Your task to perform on an android device: open app "DoorDash - Dasher" Image 0: 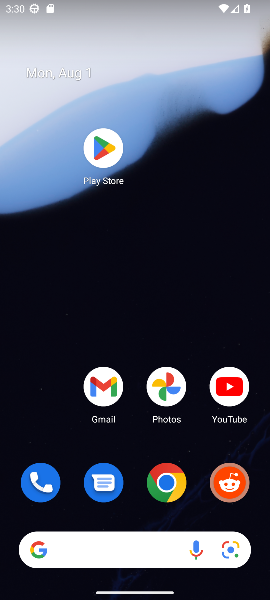
Step 0: press home button
Your task to perform on an android device: open app "DoorDash - Dasher" Image 1: 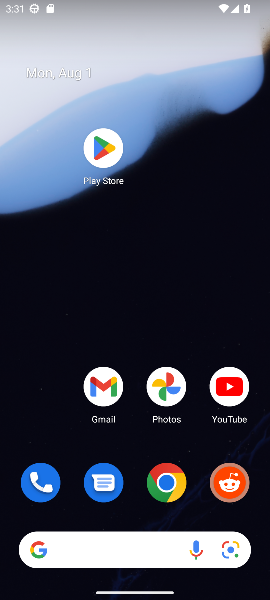
Step 1: click (105, 148)
Your task to perform on an android device: open app "DoorDash - Dasher" Image 2: 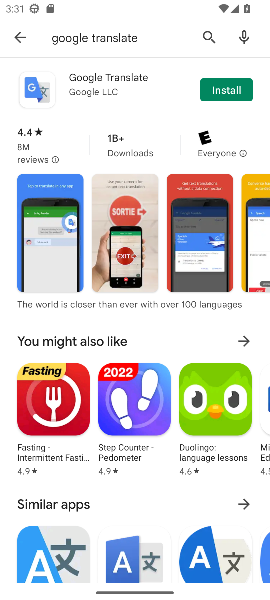
Step 2: click (208, 31)
Your task to perform on an android device: open app "DoorDash - Dasher" Image 3: 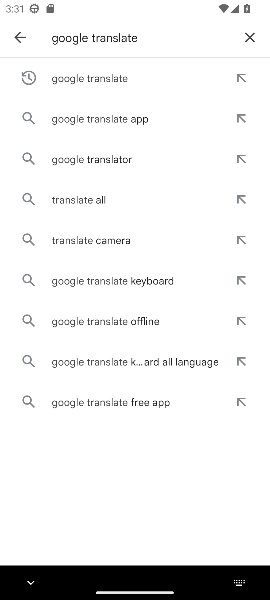
Step 3: click (243, 32)
Your task to perform on an android device: open app "DoorDash - Dasher" Image 4: 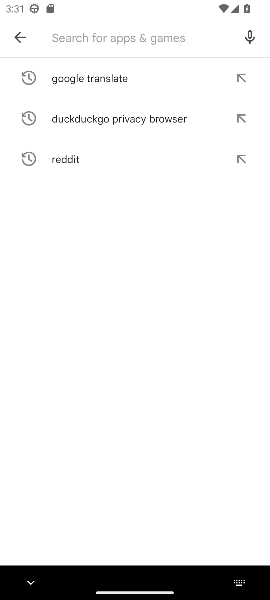
Step 4: type "DoorDash - Dasher"
Your task to perform on an android device: open app "DoorDash - Dasher" Image 5: 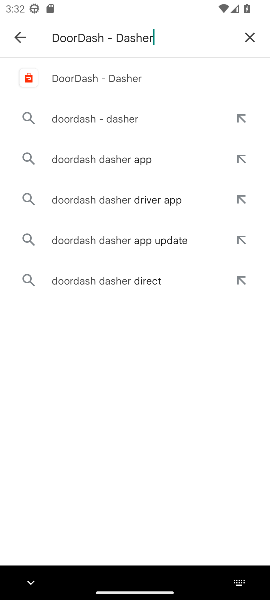
Step 5: task complete